Your task to perform on an android device: check google app version Image 0: 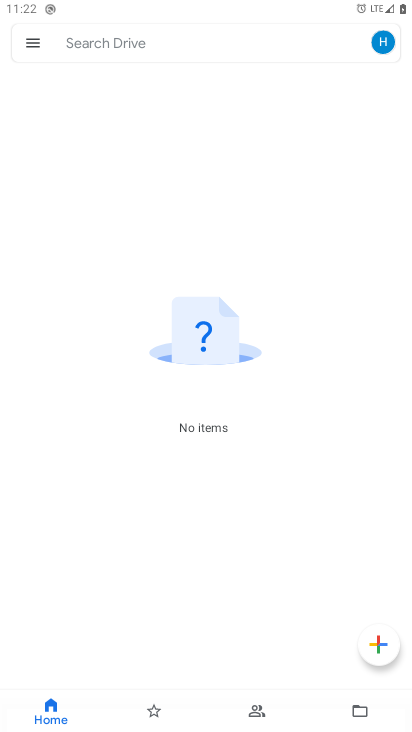
Step 0: press home button
Your task to perform on an android device: check google app version Image 1: 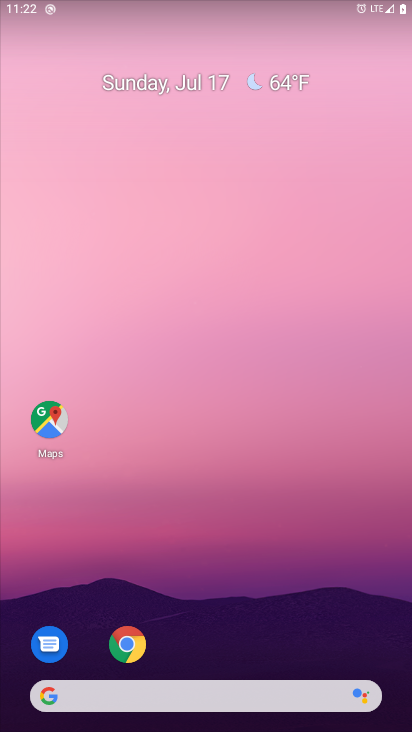
Step 1: drag from (262, 639) to (276, 124)
Your task to perform on an android device: check google app version Image 2: 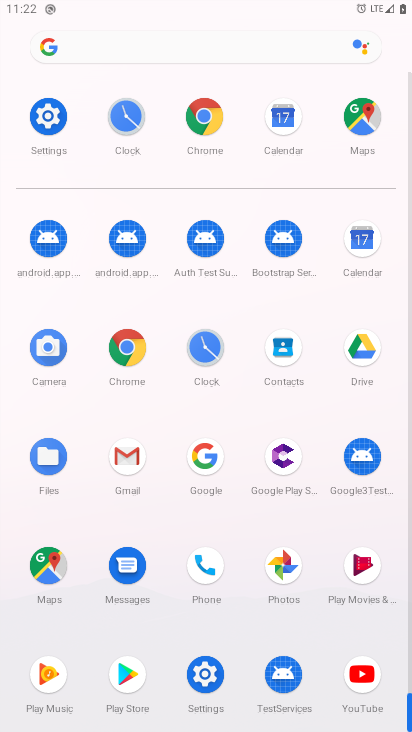
Step 2: click (196, 455)
Your task to perform on an android device: check google app version Image 3: 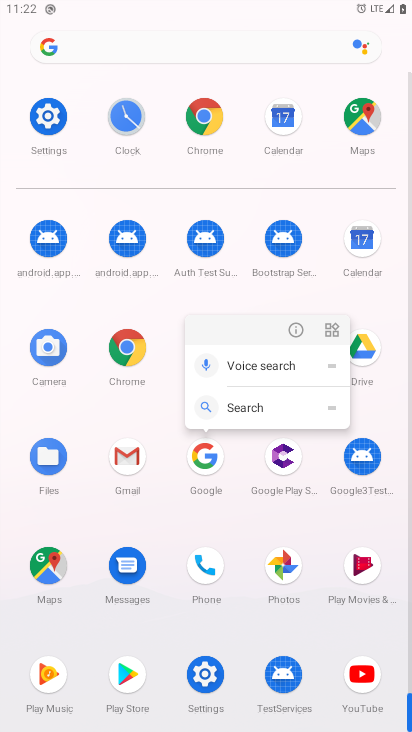
Step 3: click (292, 328)
Your task to perform on an android device: check google app version Image 4: 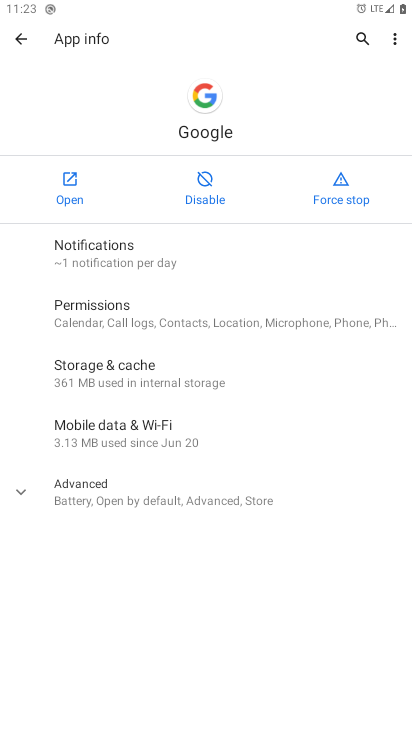
Step 4: click (24, 488)
Your task to perform on an android device: check google app version Image 5: 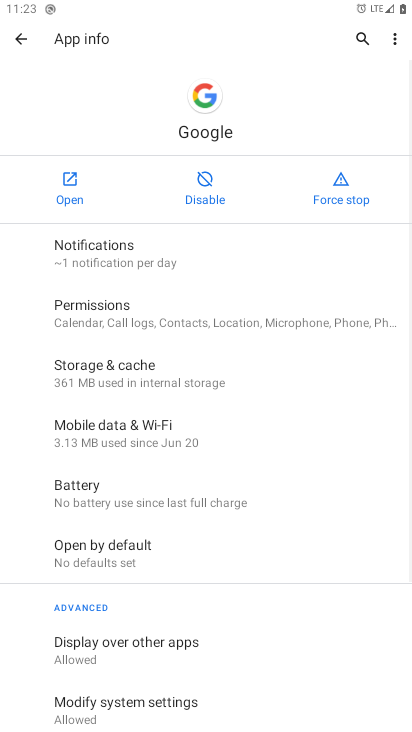
Step 5: task complete